Your task to perform on an android device: open app "Spotify" (install if not already installed) and enter user name: "infallible@icloud.com" and password: "implored" Image 0: 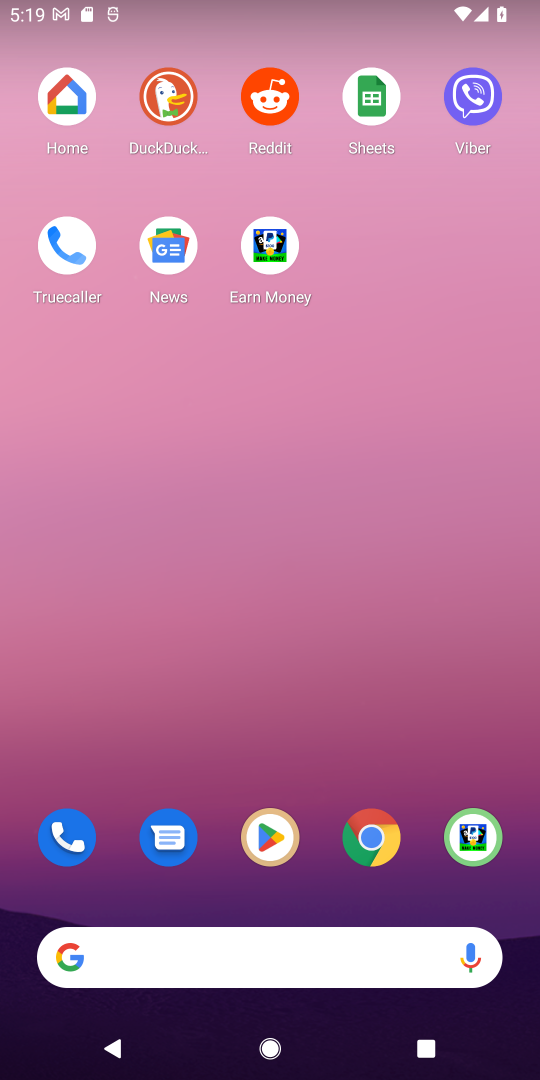
Step 0: press home button
Your task to perform on an android device: open app "Spotify" (install if not already installed) and enter user name: "infallible@icloud.com" and password: "implored" Image 1: 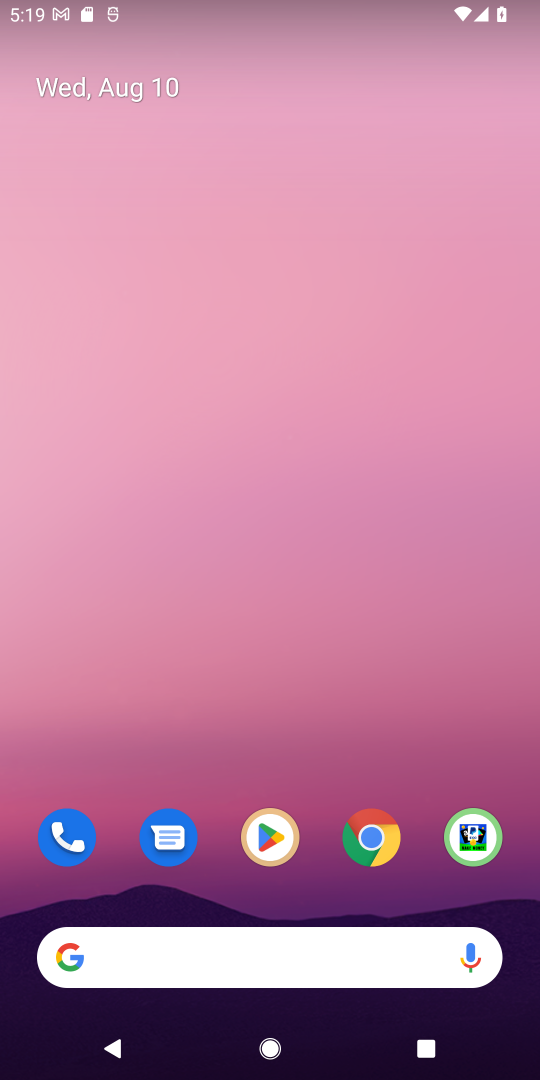
Step 1: click (279, 835)
Your task to perform on an android device: open app "Spotify" (install if not already installed) and enter user name: "infallible@icloud.com" and password: "implored" Image 2: 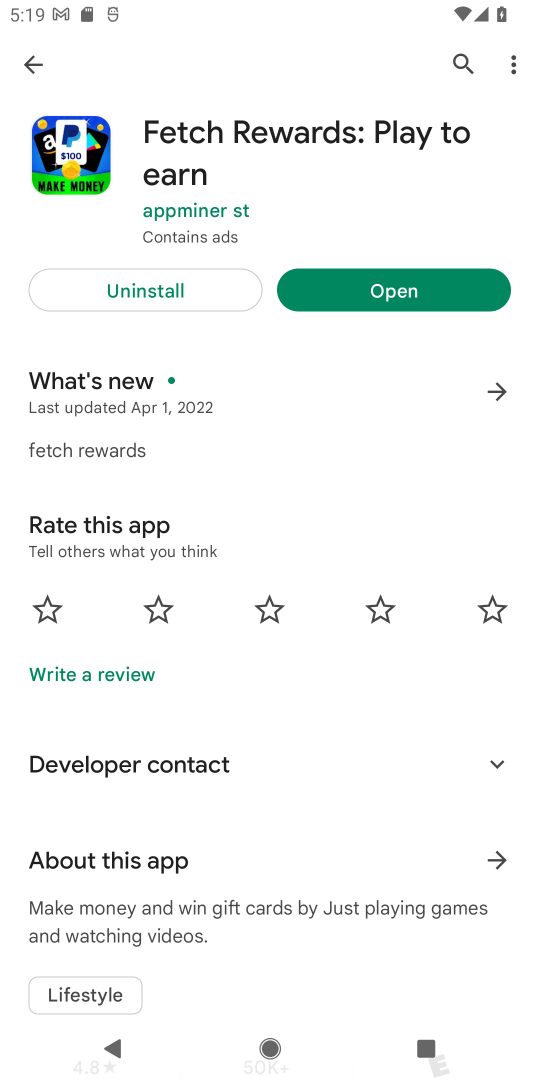
Step 2: click (459, 53)
Your task to perform on an android device: open app "Spotify" (install if not already installed) and enter user name: "infallible@icloud.com" and password: "implored" Image 3: 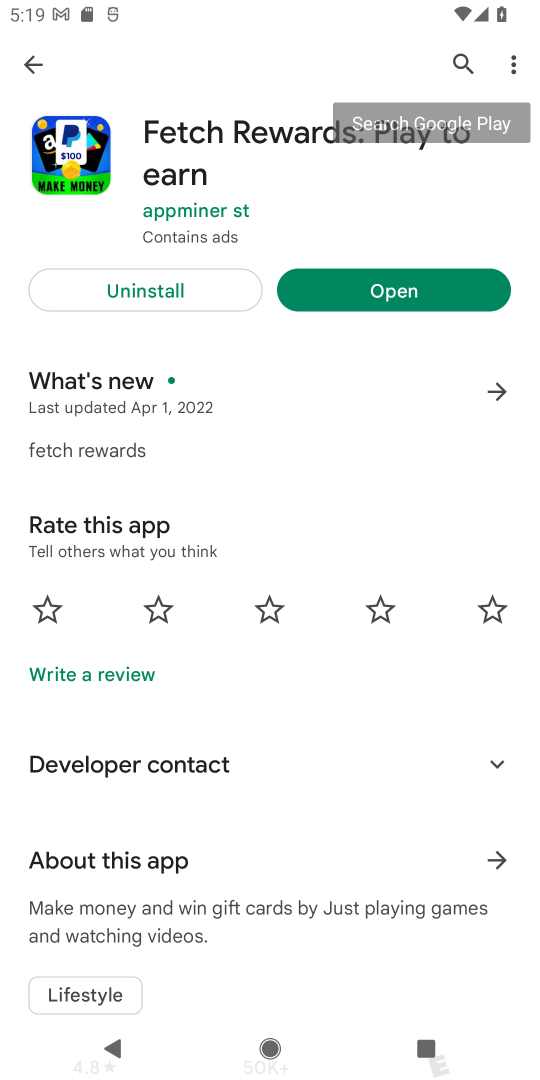
Step 3: click (462, 60)
Your task to perform on an android device: open app "Spotify" (install if not already installed) and enter user name: "infallible@icloud.com" and password: "implored" Image 4: 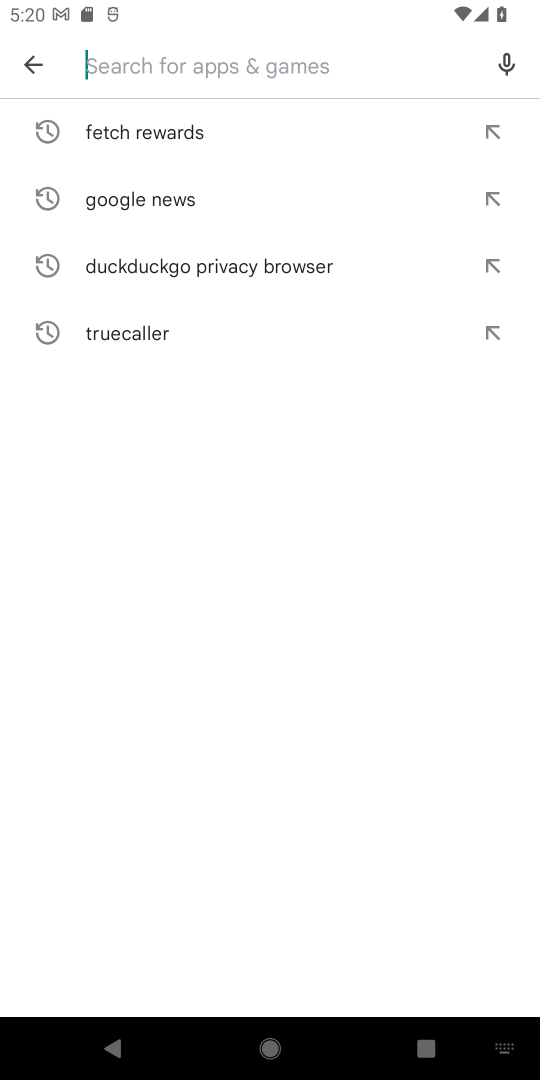
Step 4: type "Spotify"
Your task to perform on an android device: open app "Spotify" (install if not already installed) and enter user name: "infallible@icloud.com" and password: "implored" Image 5: 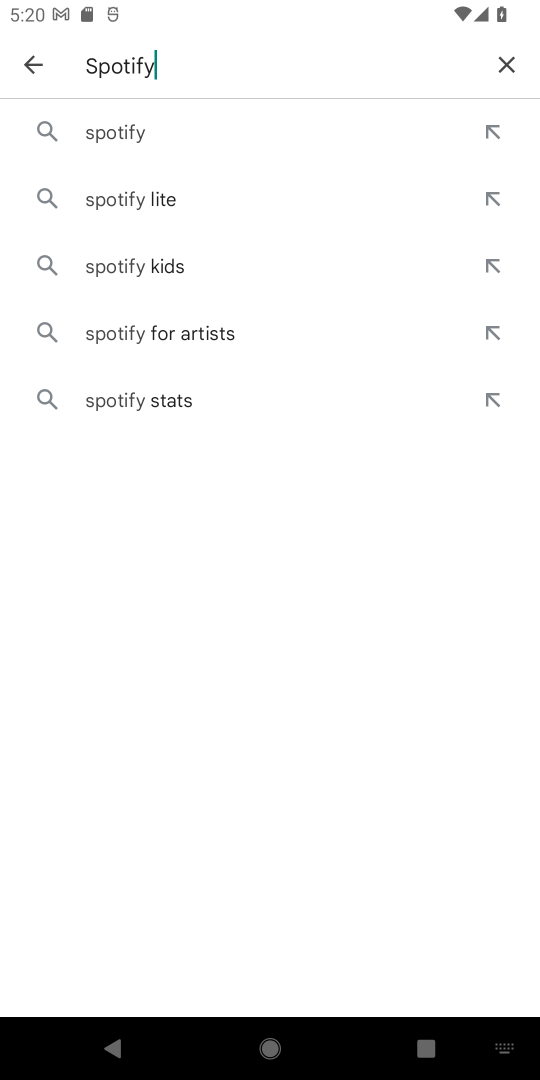
Step 5: click (117, 137)
Your task to perform on an android device: open app "Spotify" (install if not already installed) and enter user name: "infallible@icloud.com" and password: "implored" Image 6: 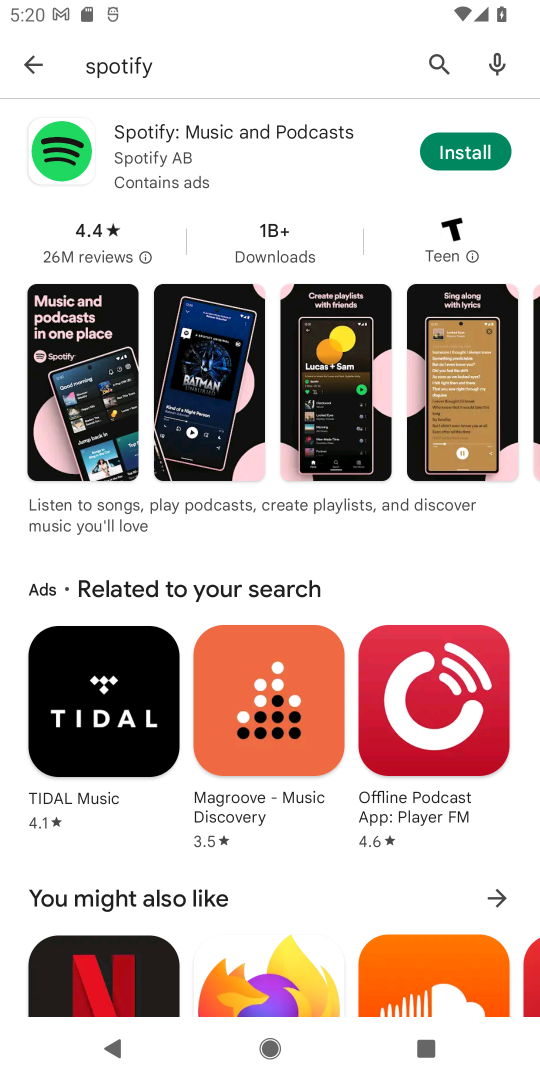
Step 6: click (459, 156)
Your task to perform on an android device: open app "Spotify" (install if not already installed) and enter user name: "infallible@icloud.com" and password: "implored" Image 7: 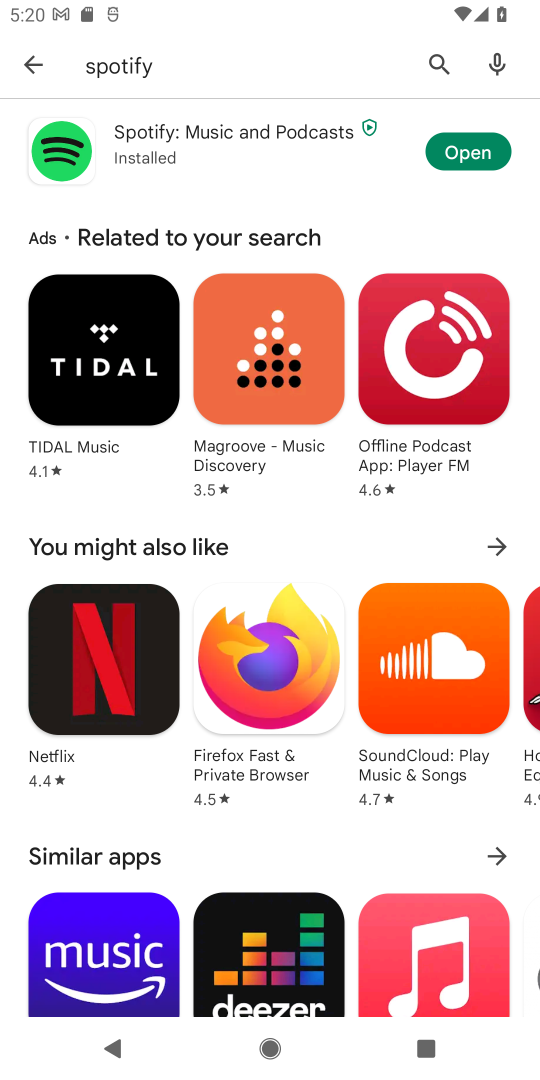
Step 7: click (459, 160)
Your task to perform on an android device: open app "Spotify" (install if not already installed) and enter user name: "infallible@icloud.com" and password: "implored" Image 8: 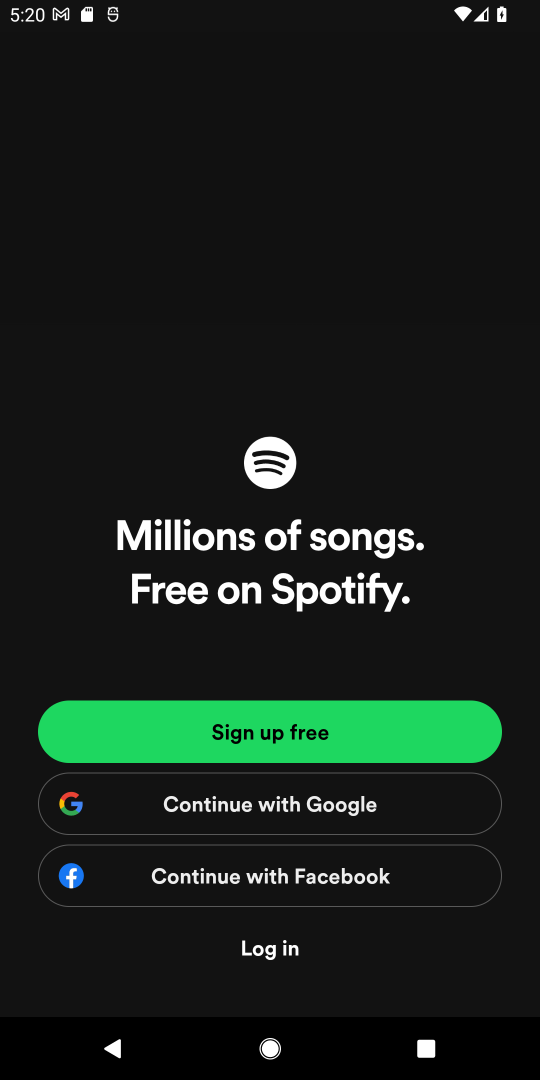
Step 8: click (269, 952)
Your task to perform on an android device: open app "Spotify" (install if not already installed) and enter user name: "infallible@icloud.com" and password: "implored" Image 9: 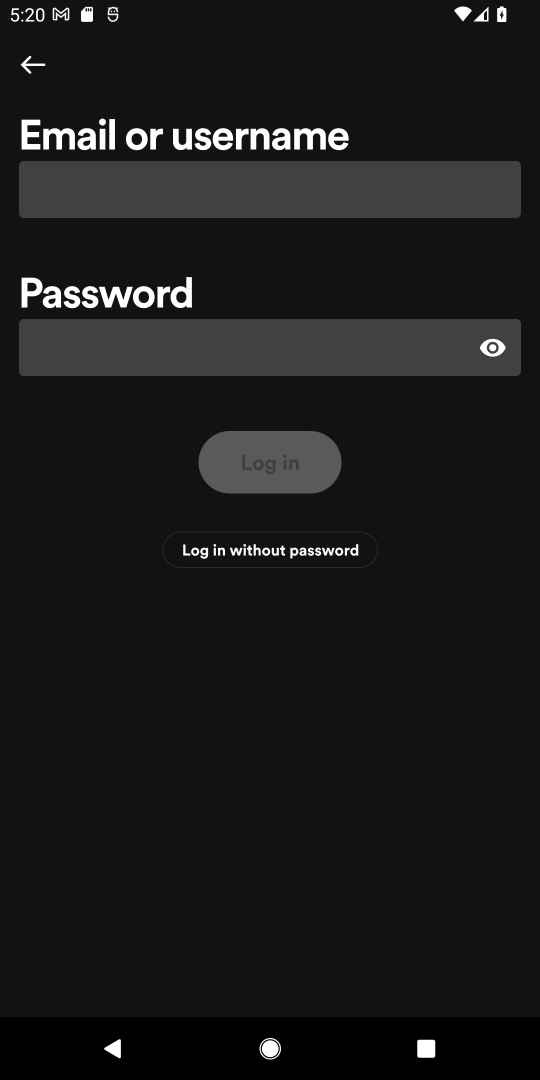
Step 9: click (161, 190)
Your task to perform on an android device: open app "Spotify" (install if not already installed) and enter user name: "infallible@icloud.com" and password: "implored" Image 10: 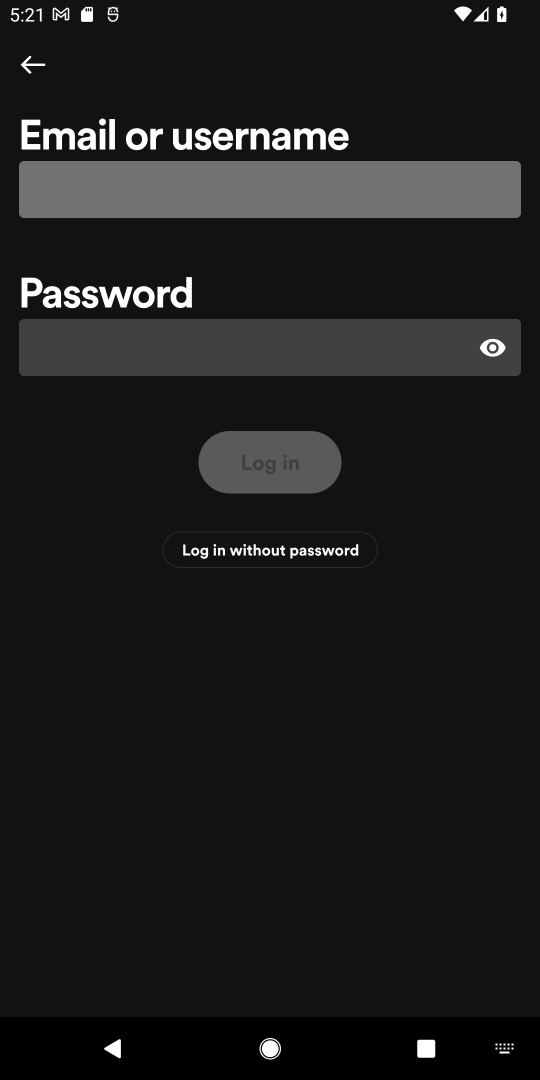
Step 10: type "infallible@icloud.com"
Your task to perform on an android device: open app "Spotify" (install if not already installed) and enter user name: "infallible@icloud.com" and password: "implored" Image 11: 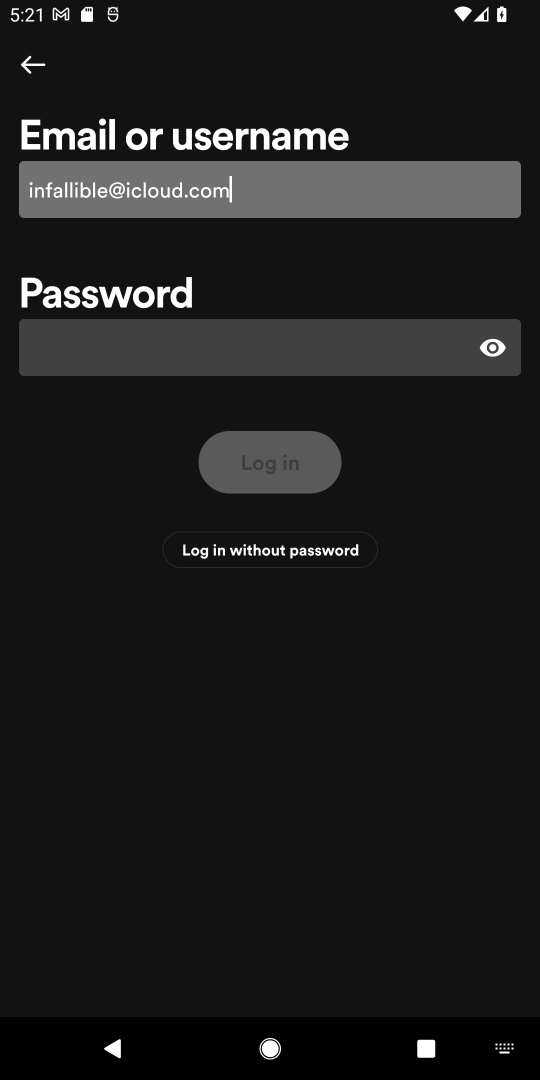
Step 11: click (79, 340)
Your task to perform on an android device: open app "Spotify" (install if not already installed) and enter user name: "infallible@icloud.com" and password: "implored" Image 12: 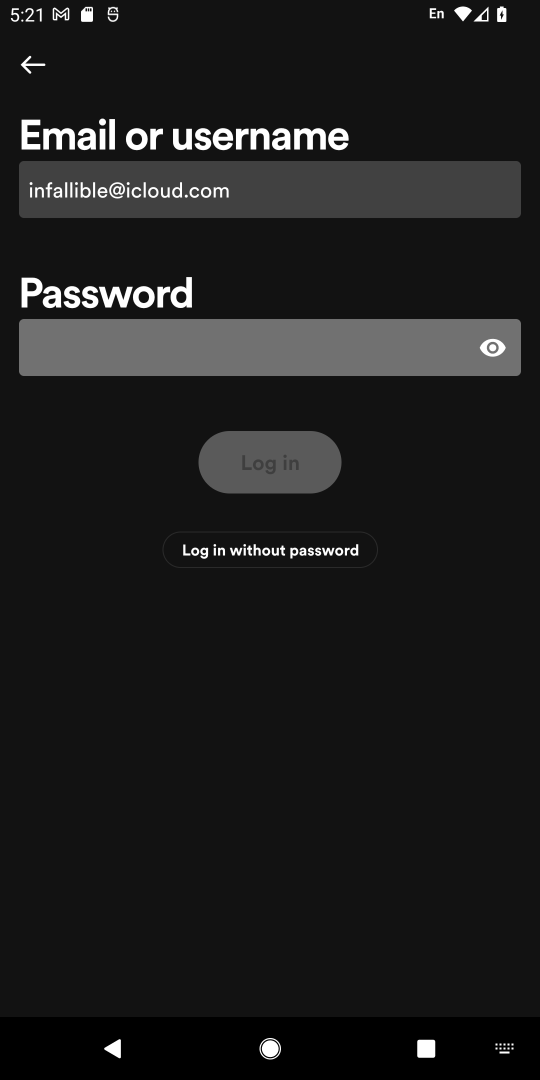
Step 12: type "implored"
Your task to perform on an android device: open app "Spotify" (install if not already installed) and enter user name: "infallible@icloud.com" and password: "implored" Image 13: 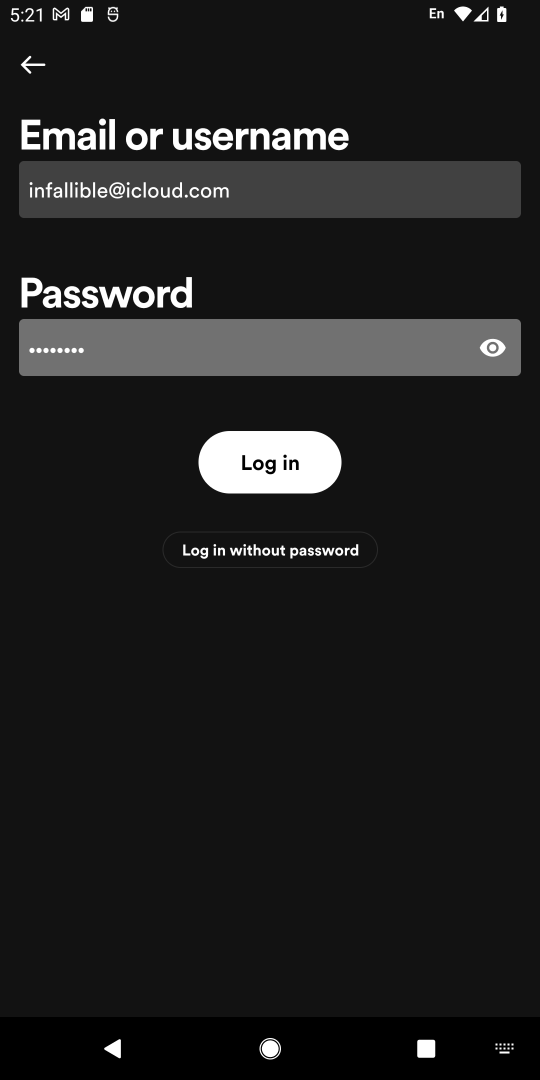
Step 13: task complete